Your task to perform on an android device: Open my contact list Image 0: 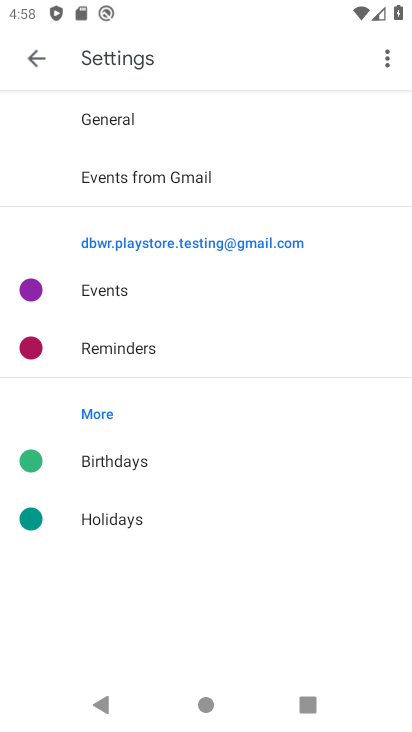
Step 0: press home button
Your task to perform on an android device: Open my contact list Image 1: 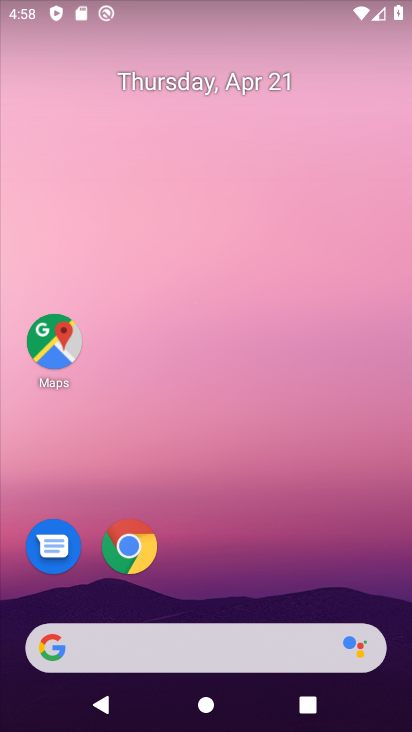
Step 1: drag from (233, 570) to (219, 66)
Your task to perform on an android device: Open my contact list Image 2: 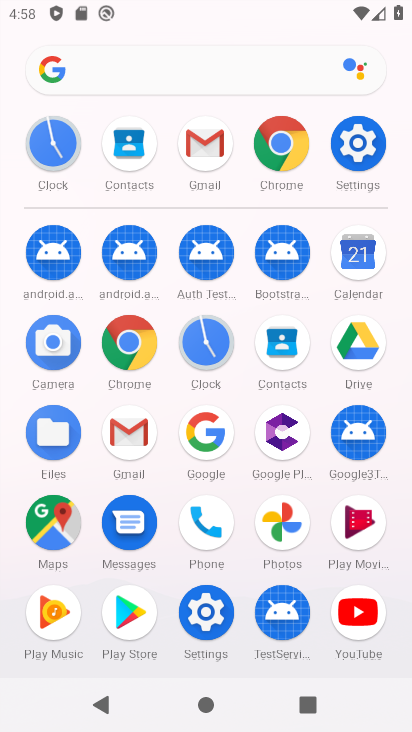
Step 2: click (284, 338)
Your task to perform on an android device: Open my contact list Image 3: 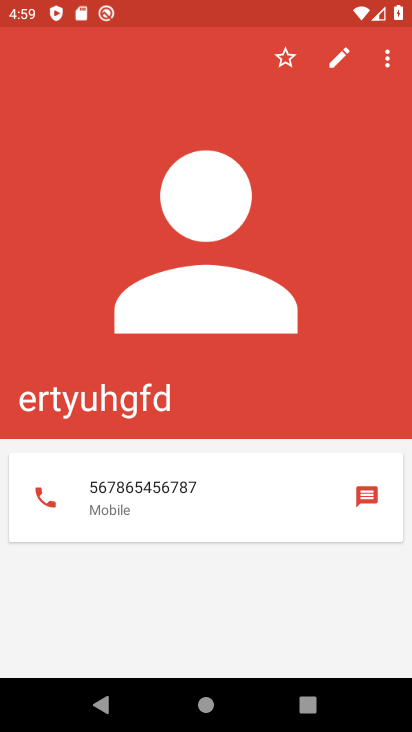
Step 3: task complete